Your task to perform on an android device: Open calendar and show me the third week of next month Image 0: 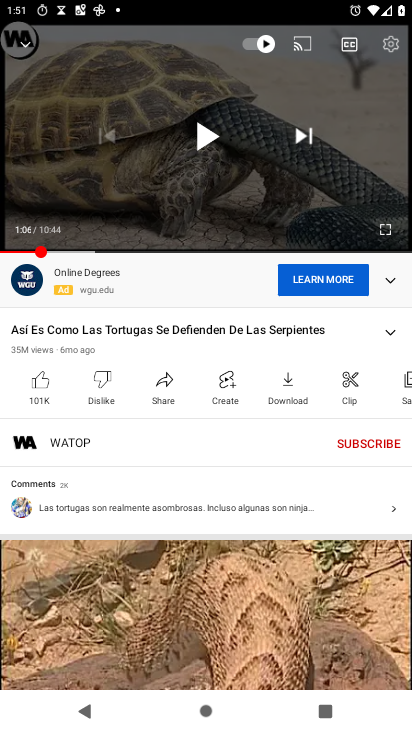
Step 0: press home button
Your task to perform on an android device: Open calendar and show me the third week of next month Image 1: 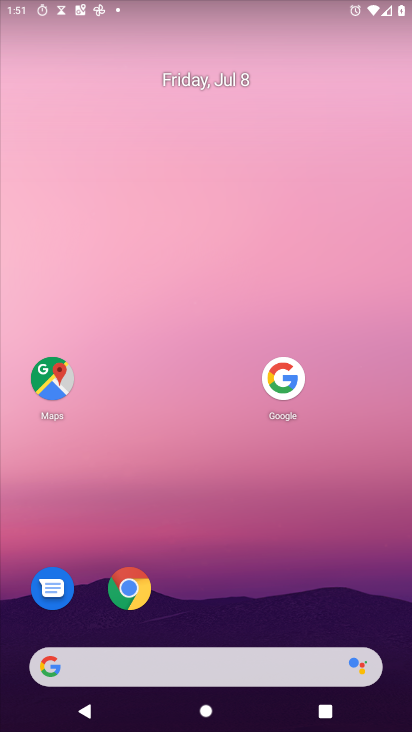
Step 1: drag from (171, 664) to (349, 4)
Your task to perform on an android device: Open calendar and show me the third week of next month Image 2: 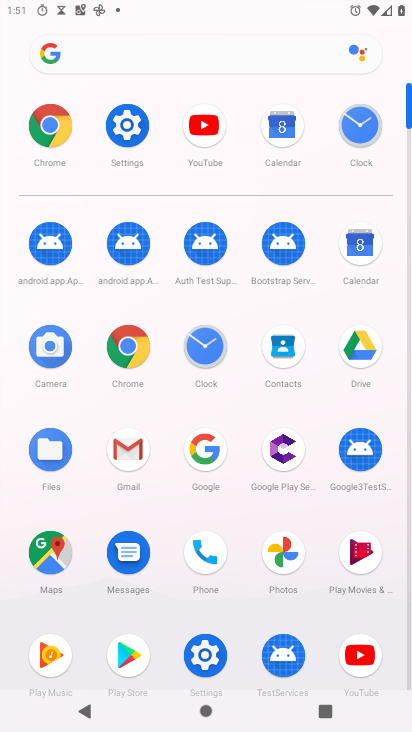
Step 2: click (282, 127)
Your task to perform on an android device: Open calendar and show me the third week of next month Image 3: 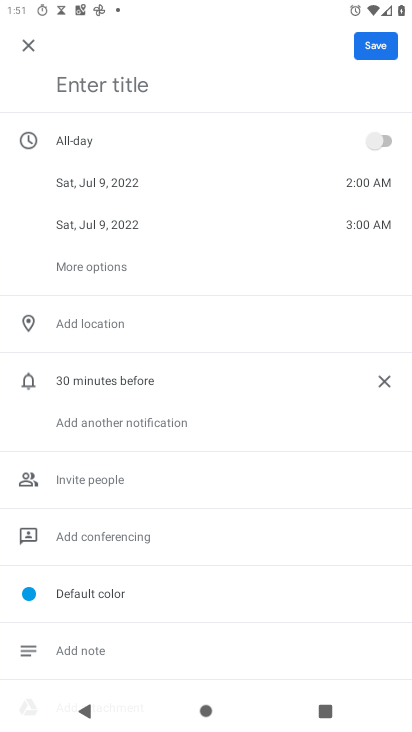
Step 3: click (25, 43)
Your task to perform on an android device: Open calendar and show me the third week of next month Image 4: 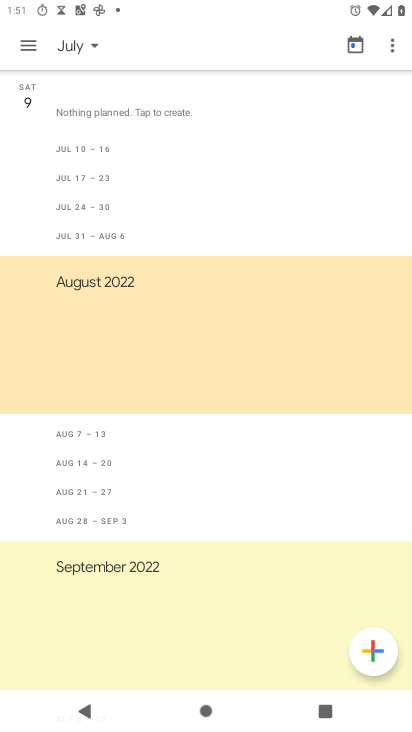
Step 4: click (74, 49)
Your task to perform on an android device: Open calendar and show me the third week of next month Image 5: 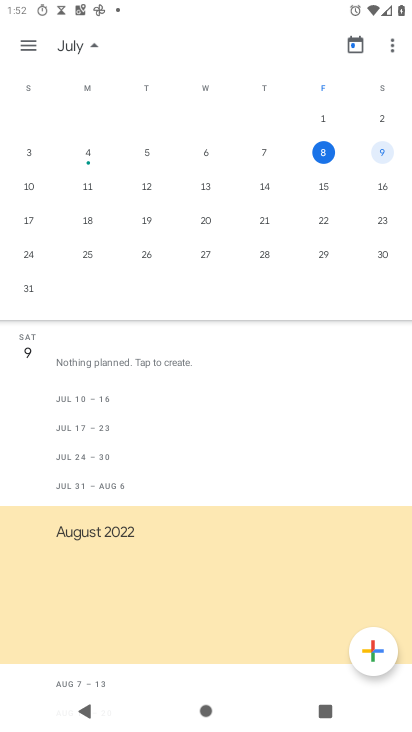
Step 5: drag from (344, 208) to (29, 206)
Your task to perform on an android device: Open calendar and show me the third week of next month Image 6: 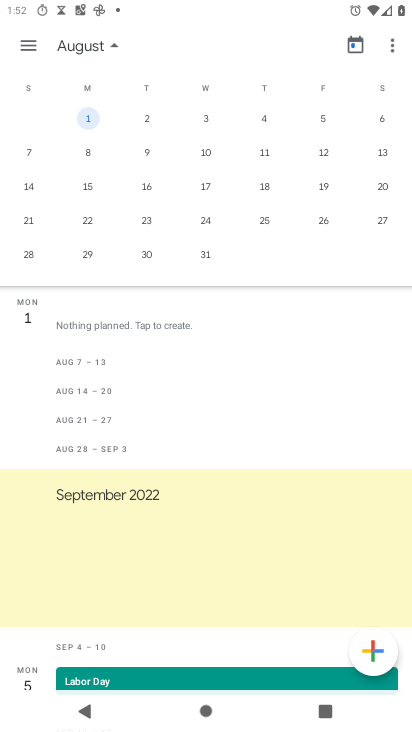
Step 6: click (28, 182)
Your task to perform on an android device: Open calendar and show me the third week of next month Image 7: 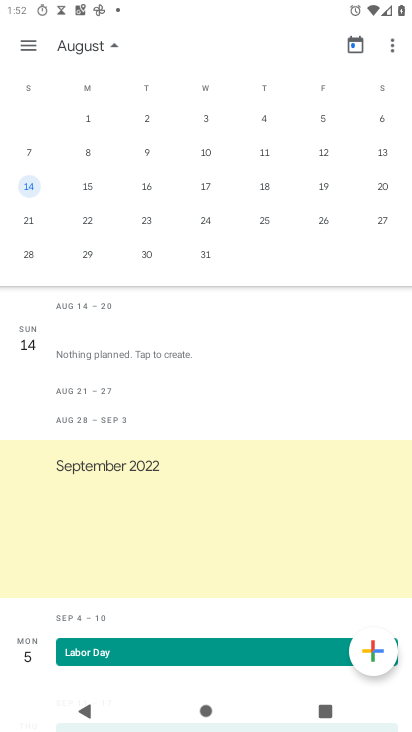
Step 7: click (26, 52)
Your task to perform on an android device: Open calendar and show me the third week of next month Image 8: 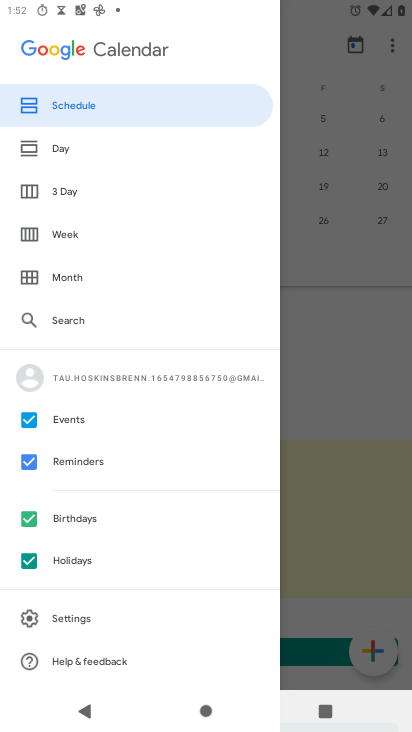
Step 8: click (68, 239)
Your task to perform on an android device: Open calendar and show me the third week of next month Image 9: 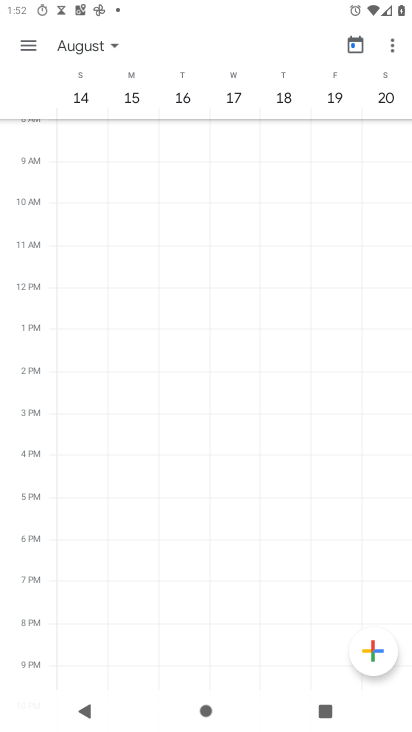
Step 9: task complete